Your task to perform on an android device: clear history in the chrome app Image 0: 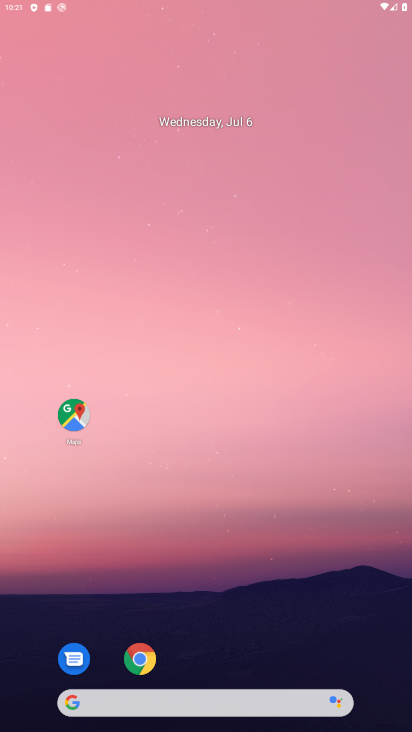
Step 0: click (291, 0)
Your task to perform on an android device: clear history in the chrome app Image 1: 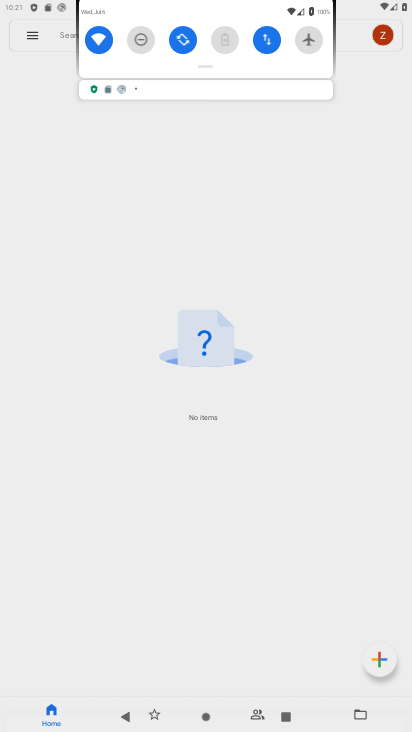
Step 1: press back button
Your task to perform on an android device: clear history in the chrome app Image 2: 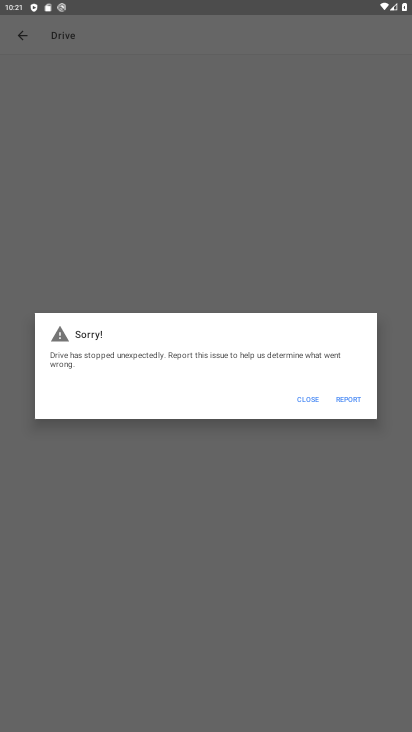
Step 2: press back button
Your task to perform on an android device: clear history in the chrome app Image 3: 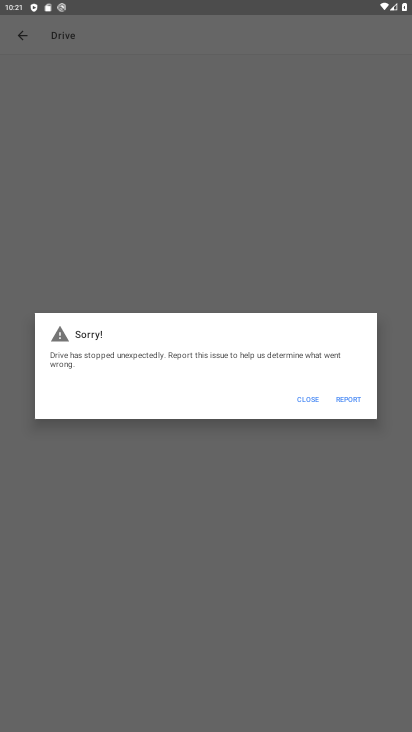
Step 3: press back button
Your task to perform on an android device: clear history in the chrome app Image 4: 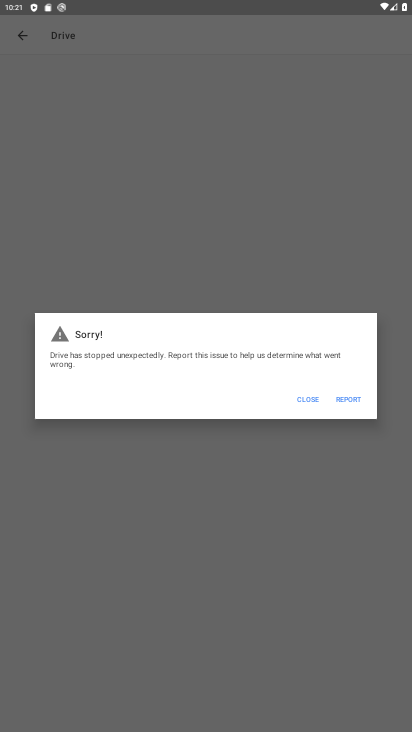
Step 4: click (289, 389)
Your task to perform on an android device: clear history in the chrome app Image 5: 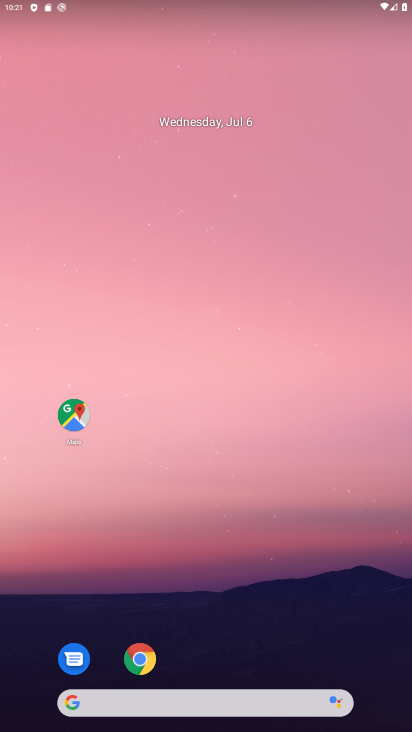
Step 5: drag from (234, 554) to (322, 15)
Your task to perform on an android device: clear history in the chrome app Image 6: 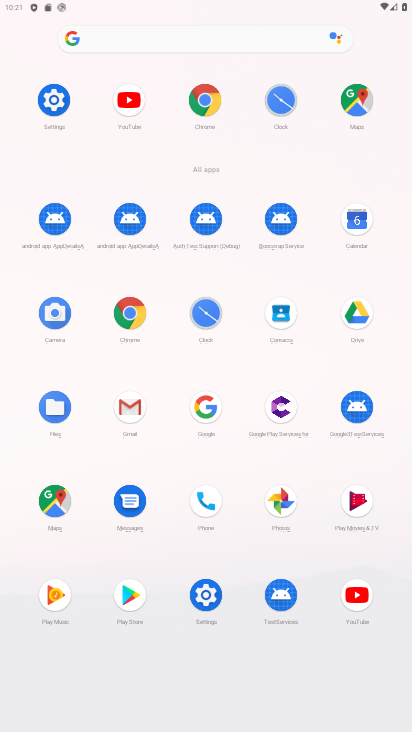
Step 6: click (209, 93)
Your task to perform on an android device: clear history in the chrome app Image 7: 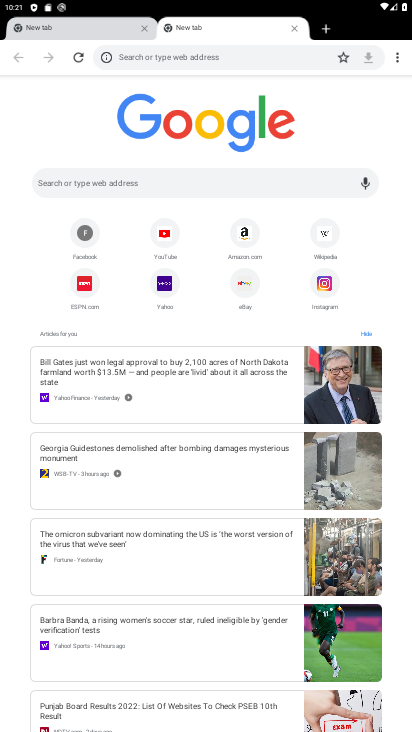
Step 7: click (395, 58)
Your task to perform on an android device: clear history in the chrome app Image 8: 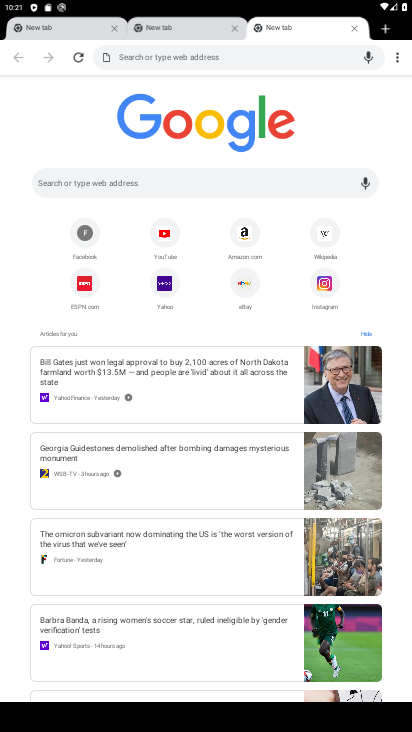
Step 8: task complete